Your task to perform on an android device: Find a good burger place on Maps Image 0: 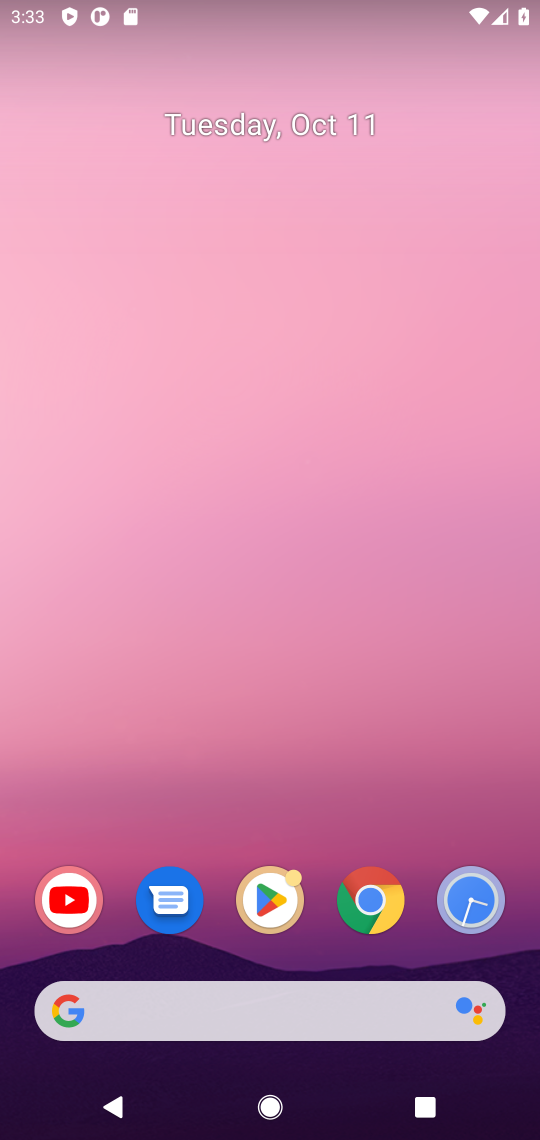
Step 0: click (152, 1015)
Your task to perform on an android device: Find a good burger place on Maps Image 1: 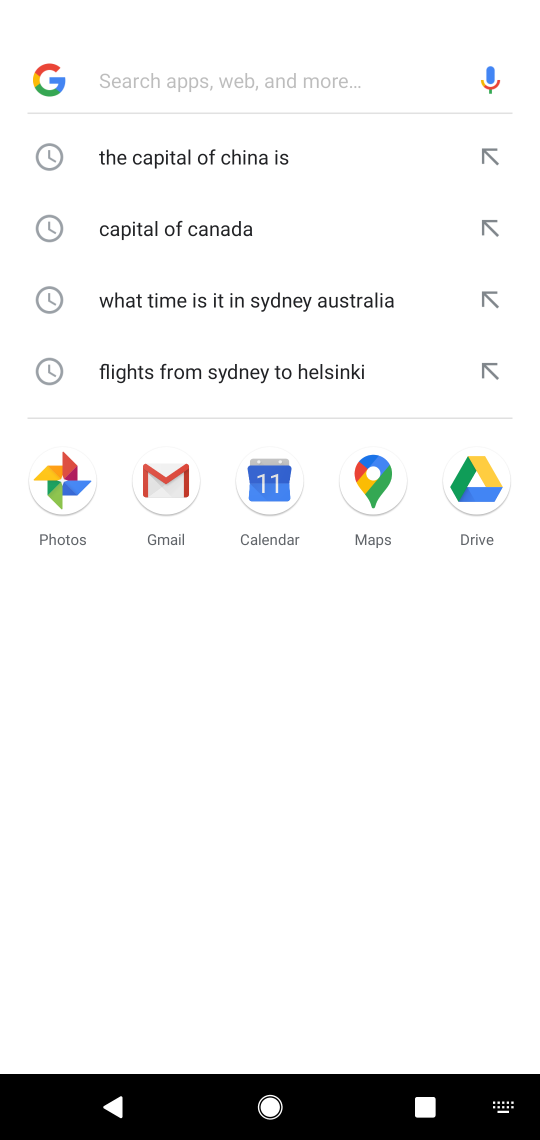
Step 1: press back button
Your task to perform on an android device: Find a good burger place on Maps Image 2: 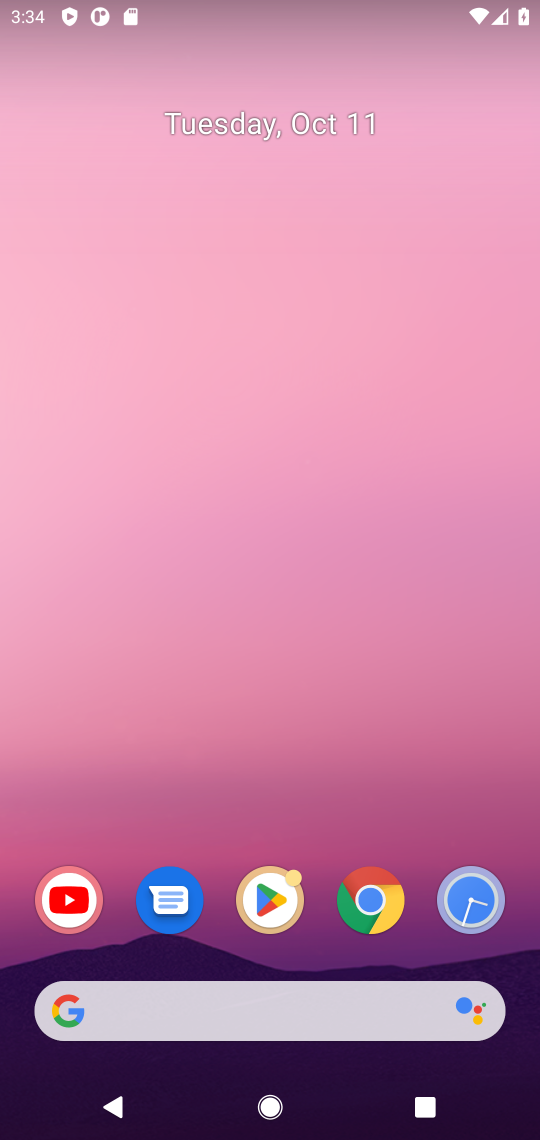
Step 2: drag from (325, 1111) to (296, 171)
Your task to perform on an android device: Find a good burger place on Maps Image 3: 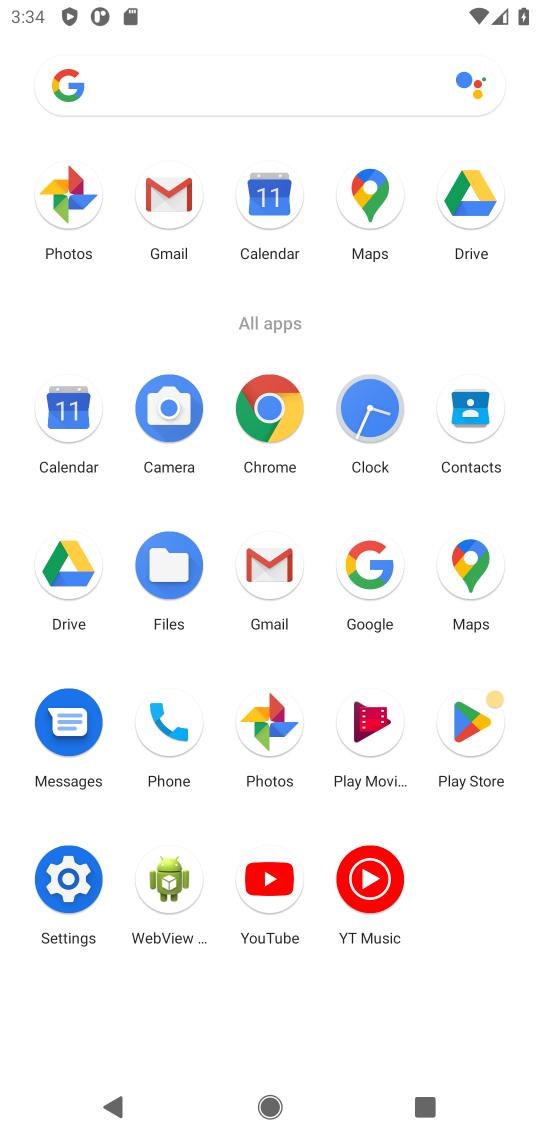
Step 3: click (469, 554)
Your task to perform on an android device: Find a good burger place on Maps Image 4: 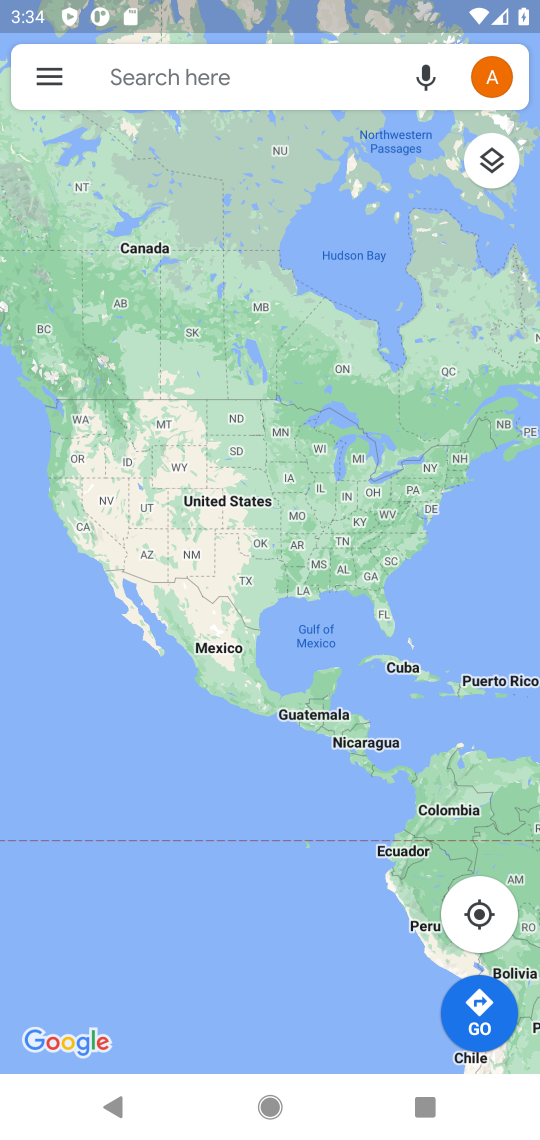
Step 4: click (238, 60)
Your task to perform on an android device: Find a good burger place on Maps Image 5: 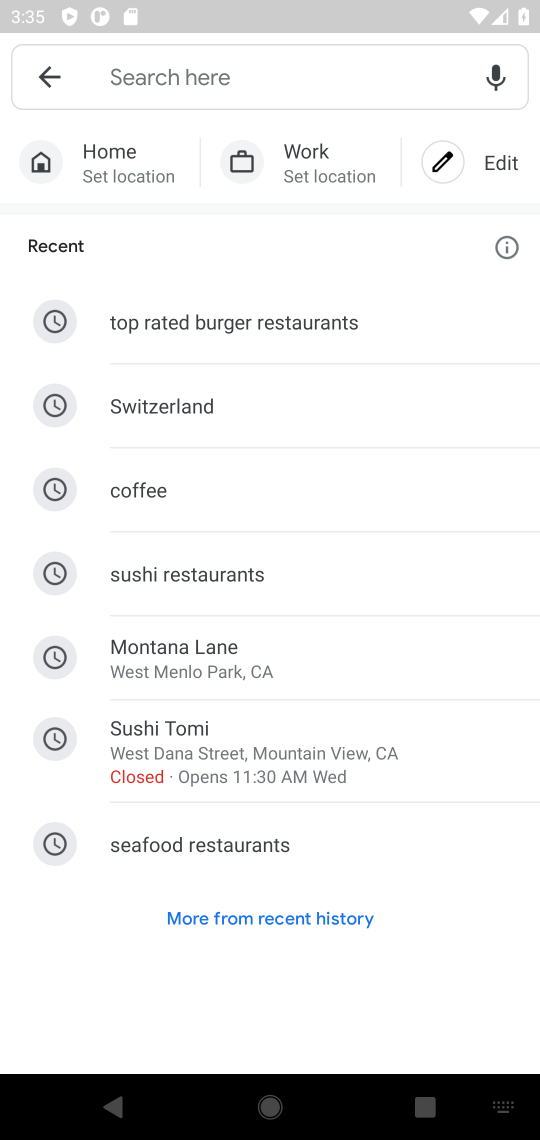
Step 5: click (238, 70)
Your task to perform on an android device: Find a good burger place on Maps Image 6: 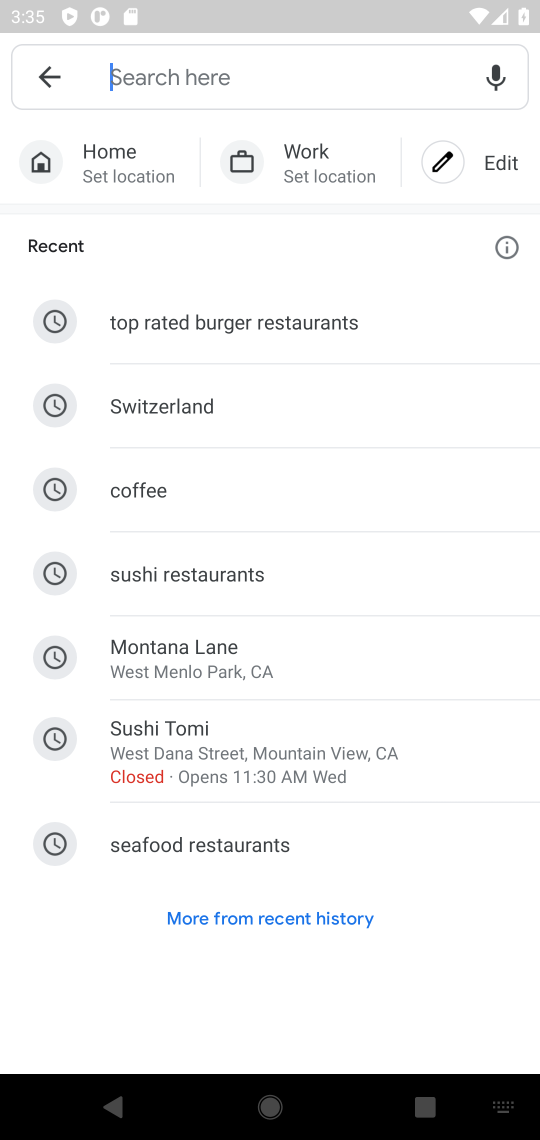
Step 6: type "good burger place on Maps"
Your task to perform on an android device: Find a good burger place on Maps Image 7: 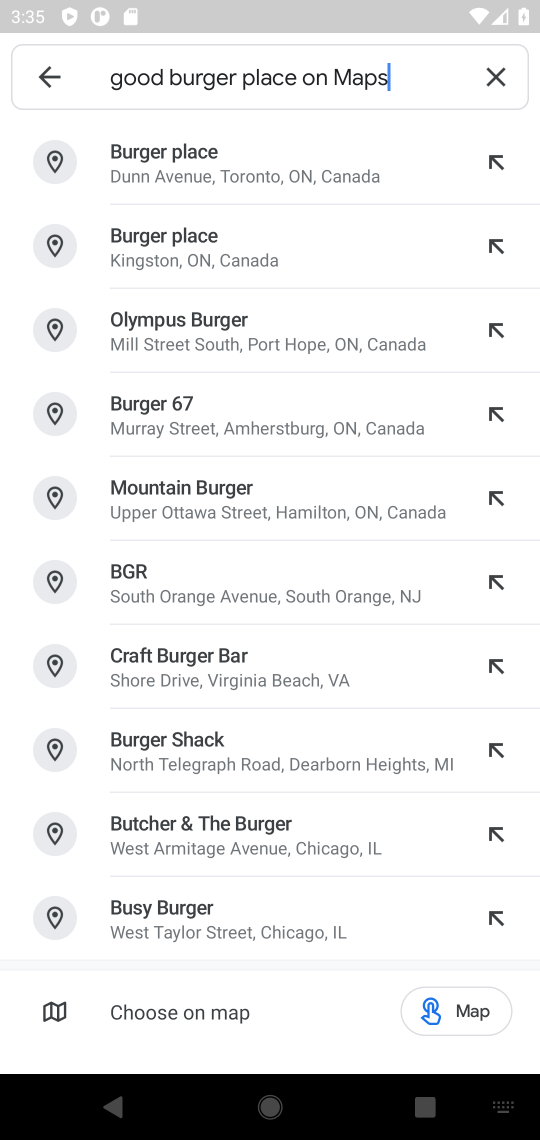
Step 7: type ""
Your task to perform on an android device: Find a good burger place on Maps Image 8: 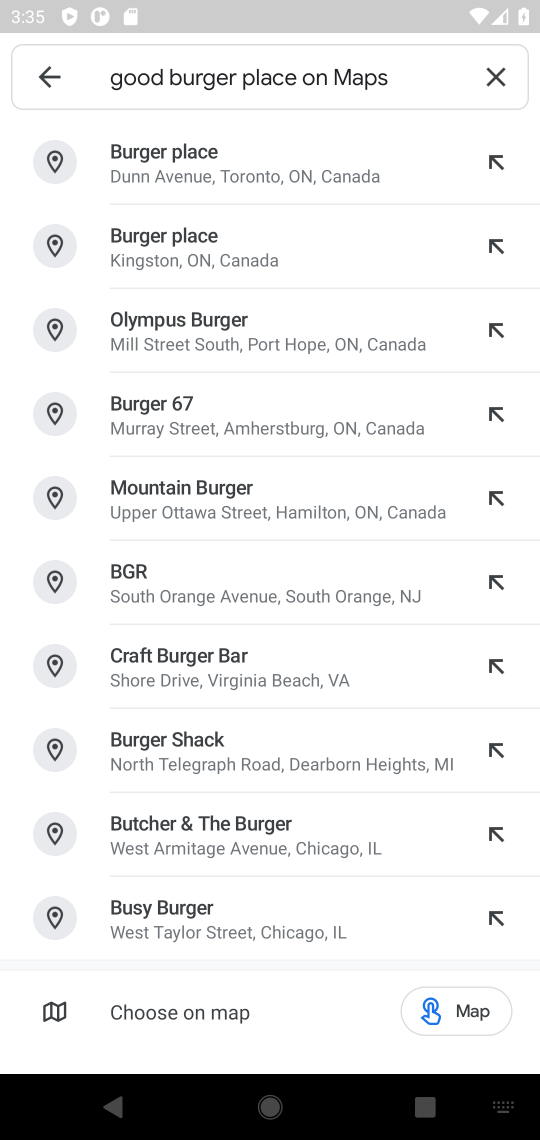
Step 8: press enter
Your task to perform on an android device: Find a good burger place on Maps Image 9: 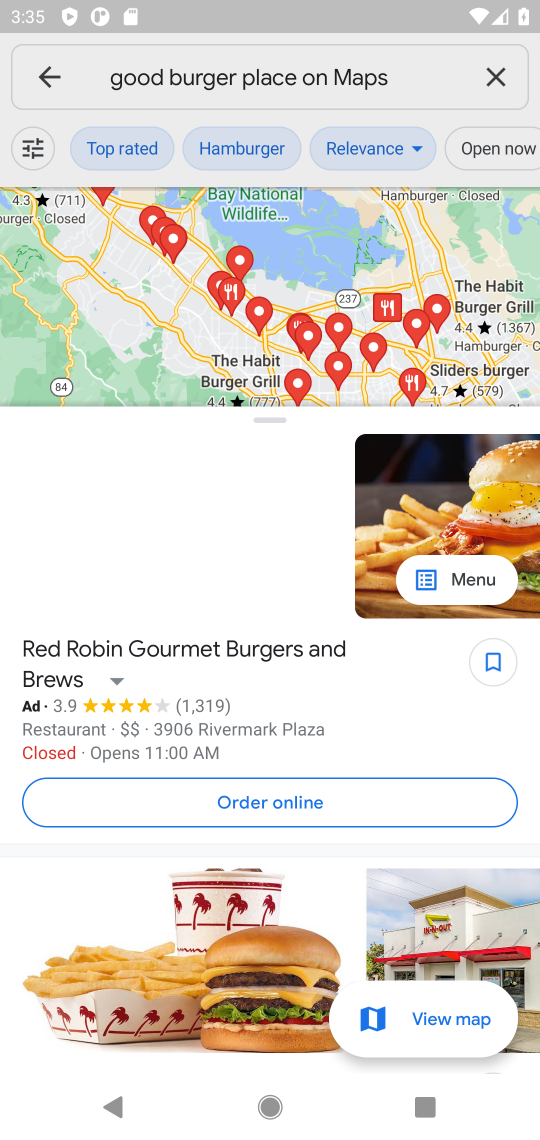
Step 9: task complete